Your task to perform on an android device: find which apps use the phone's location Image 0: 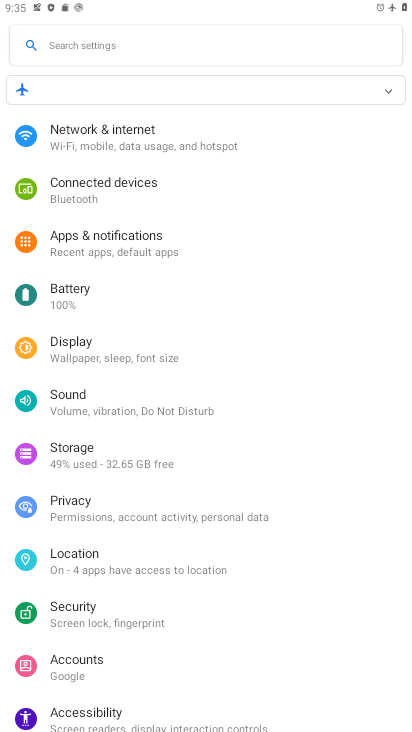
Step 0: click (101, 543)
Your task to perform on an android device: find which apps use the phone's location Image 1: 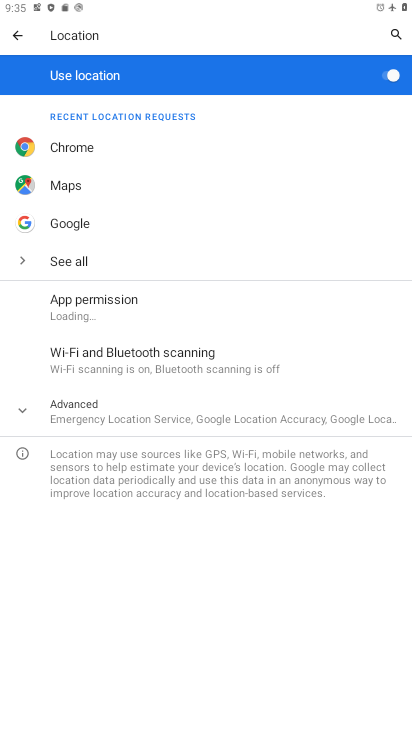
Step 1: click (91, 321)
Your task to perform on an android device: find which apps use the phone's location Image 2: 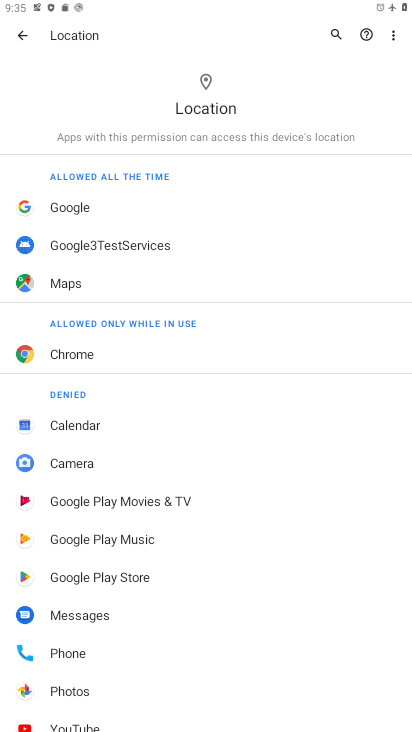
Step 2: task complete